Your task to perform on an android device: Do I have any events today? Image 0: 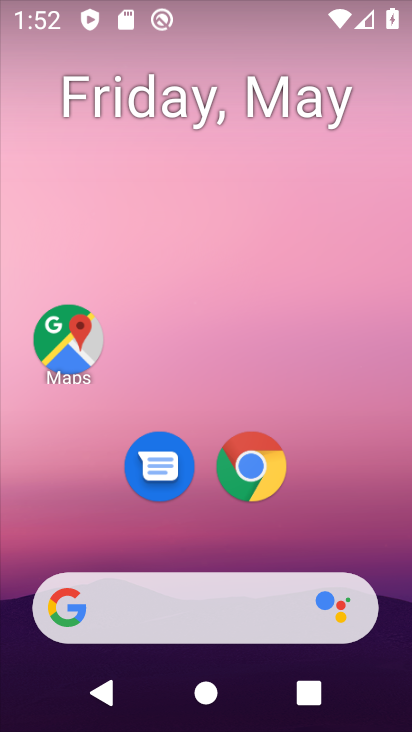
Step 0: drag from (336, 553) to (320, 22)
Your task to perform on an android device: Do I have any events today? Image 1: 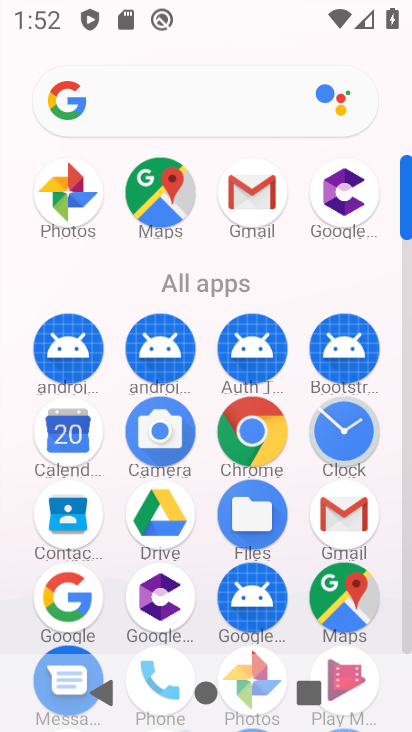
Step 1: click (211, 107)
Your task to perform on an android device: Do I have any events today? Image 2: 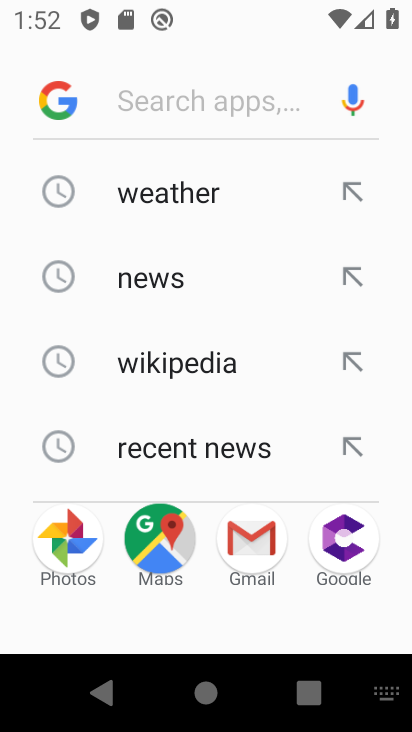
Step 2: press home button
Your task to perform on an android device: Do I have any events today? Image 3: 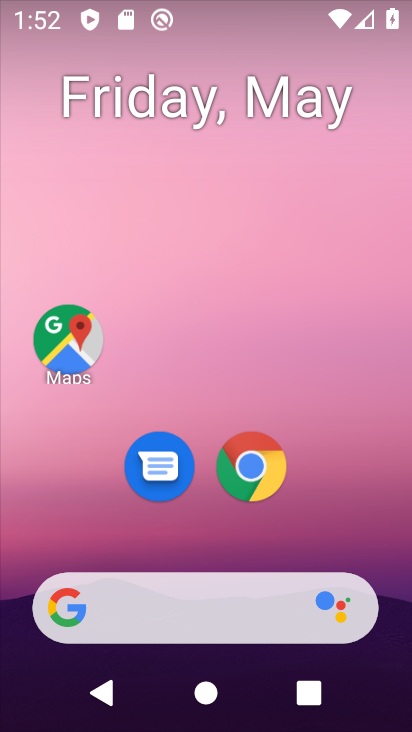
Step 3: drag from (340, 527) to (253, 82)
Your task to perform on an android device: Do I have any events today? Image 4: 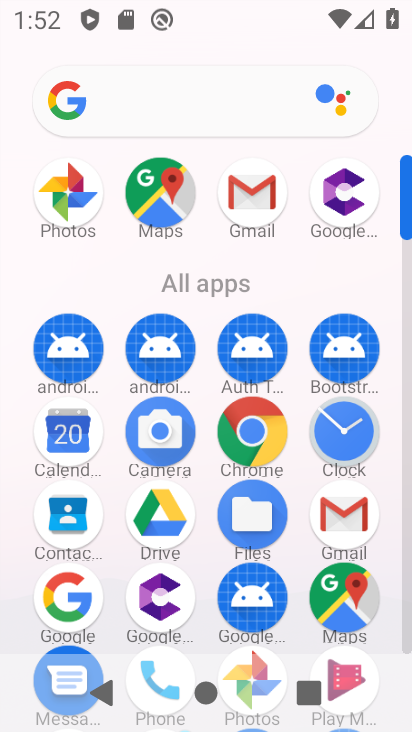
Step 4: click (85, 457)
Your task to perform on an android device: Do I have any events today? Image 5: 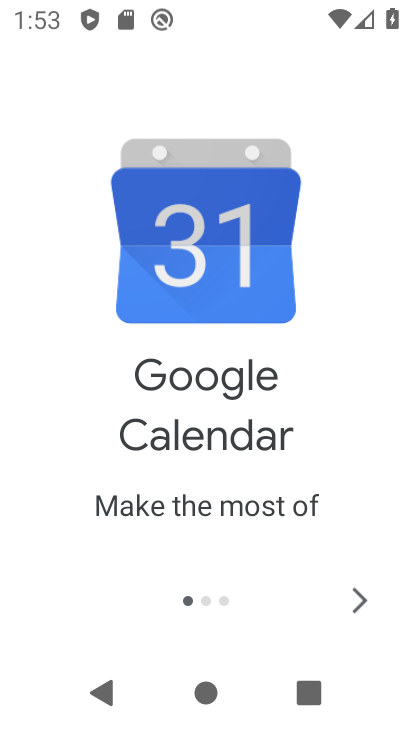
Step 5: click (344, 599)
Your task to perform on an android device: Do I have any events today? Image 6: 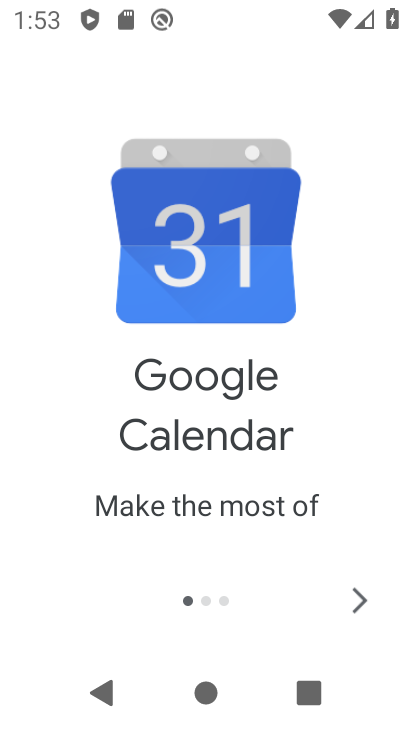
Step 6: click (344, 599)
Your task to perform on an android device: Do I have any events today? Image 7: 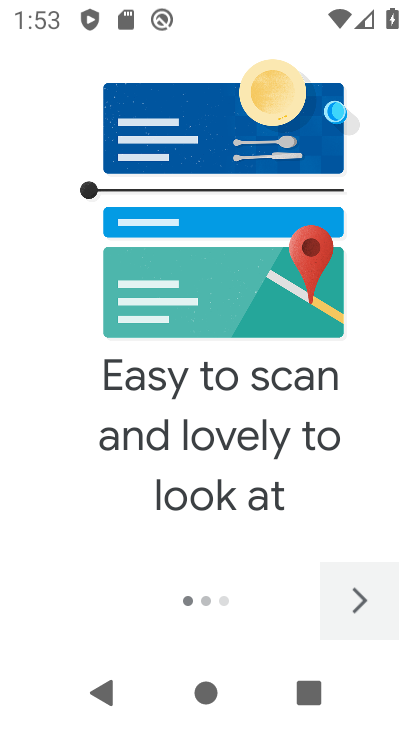
Step 7: click (344, 599)
Your task to perform on an android device: Do I have any events today? Image 8: 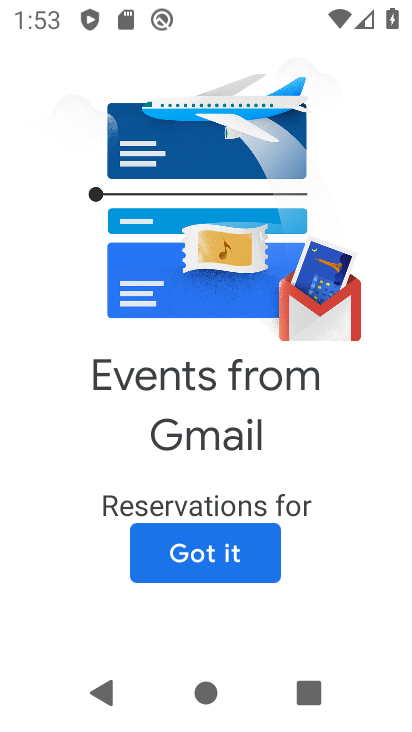
Step 8: click (207, 534)
Your task to perform on an android device: Do I have any events today? Image 9: 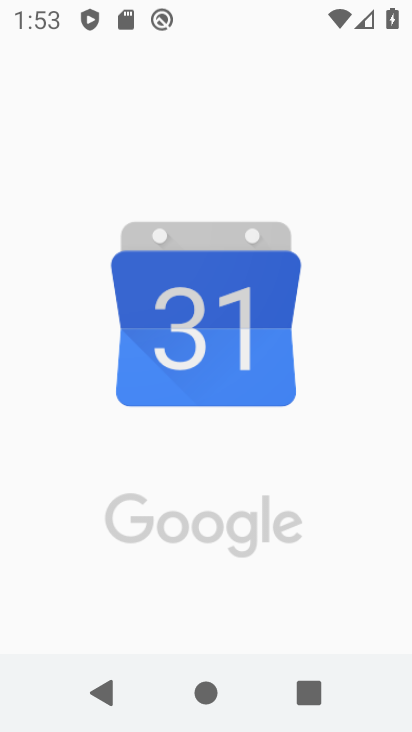
Step 9: task complete